Your task to perform on an android device: toggle location history Image 0: 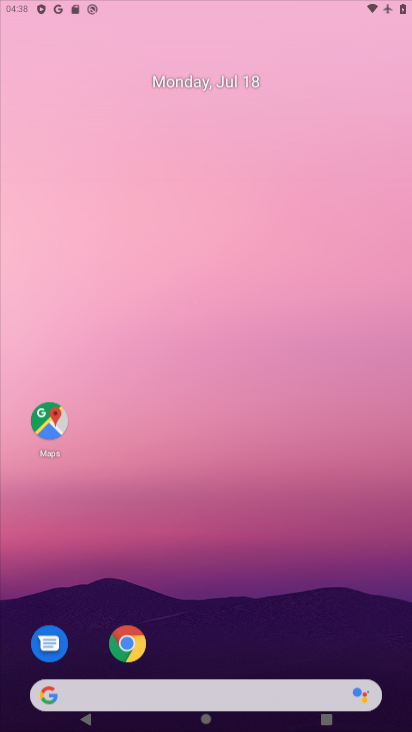
Step 0: press home button
Your task to perform on an android device: toggle location history Image 1: 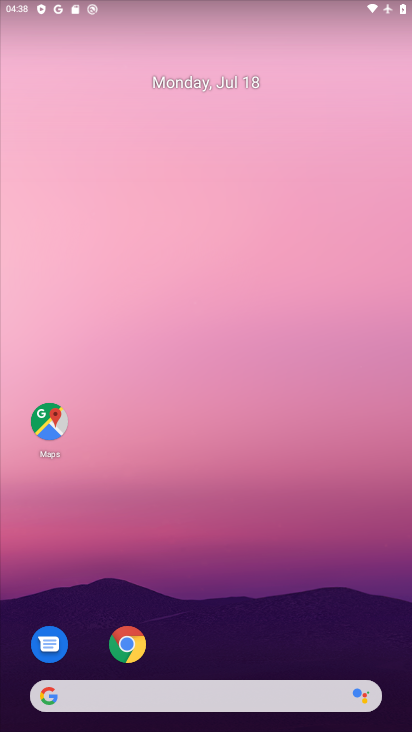
Step 1: drag from (256, 631) to (188, 169)
Your task to perform on an android device: toggle location history Image 2: 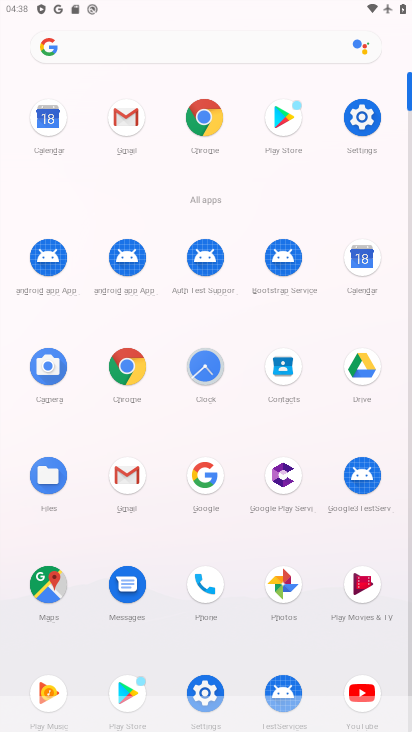
Step 2: click (360, 119)
Your task to perform on an android device: toggle location history Image 3: 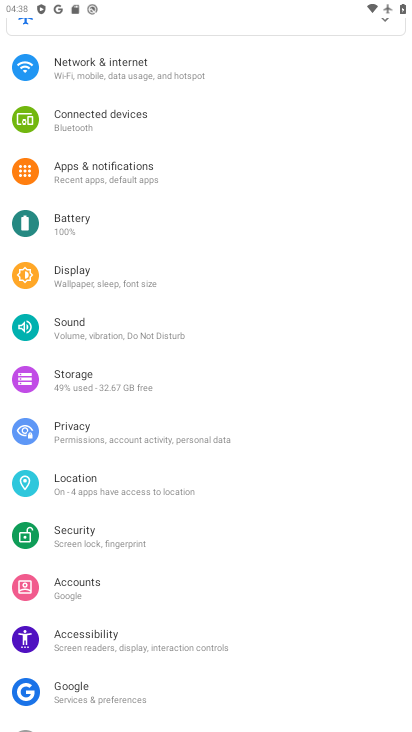
Step 3: click (77, 483)
Your task to perform on an android device: toggle location history Image 4: 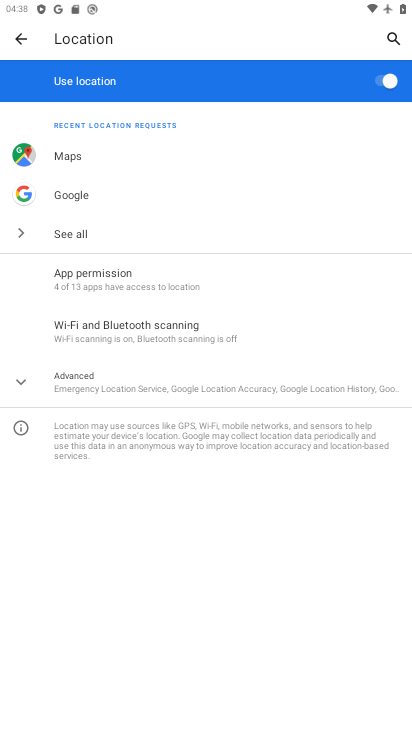
Step 4: click (77, 377)
Your task to perform on an android device: toggle location history Image 5: 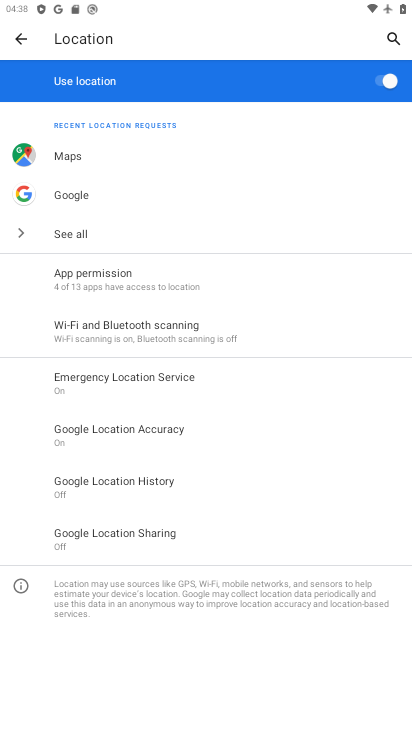
Step 5: click (144, 481)
Your task to perform on an android device: toggle location history Image 6: 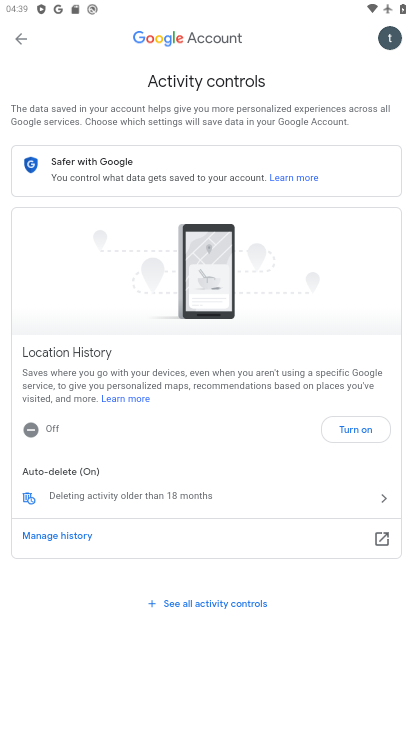
Step 6: click (350, 431)
Your task to perform on an android device: toggle location history Image 7: 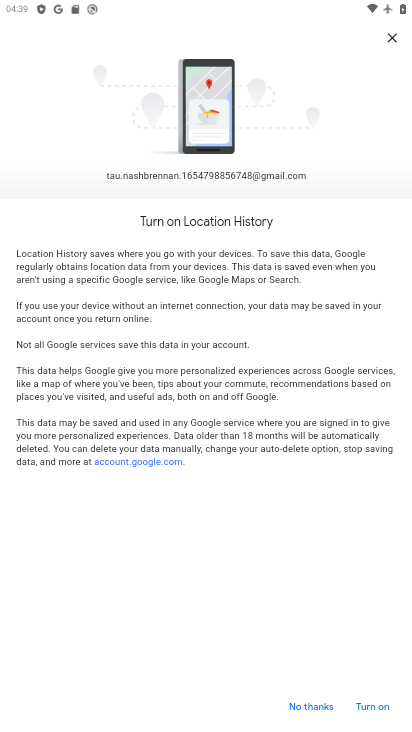
Step 7: click (365, 708)
Your task to perform on an android device: toggle location history Image 8: 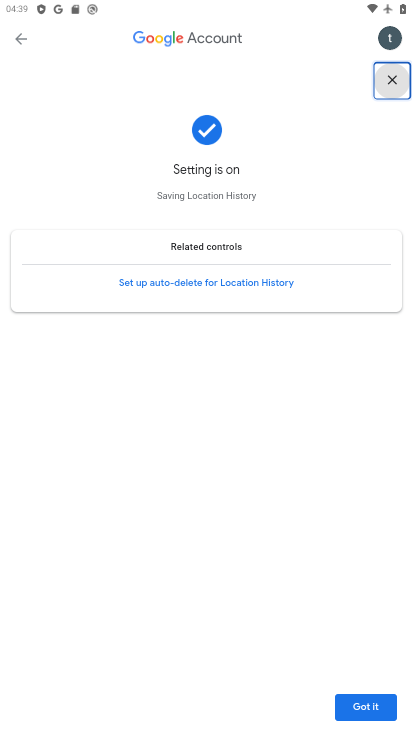
Step 8: click (350, 707)
Your task to perform on an android device: toggle location history Image 9: 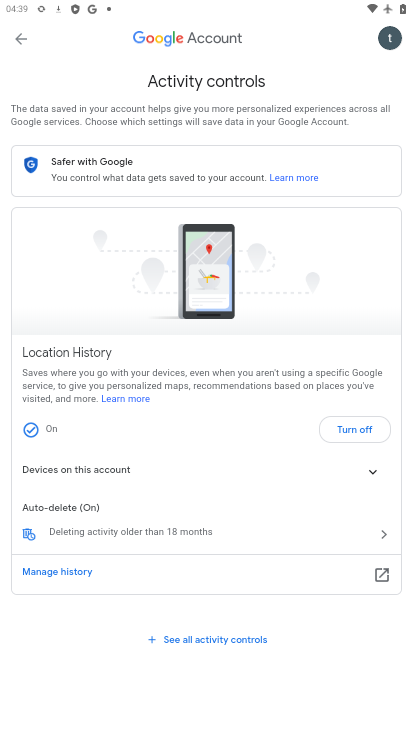
Step 9: task complete